Your task to perform on an android device: turn on the 24-hour format for clock Image 0: 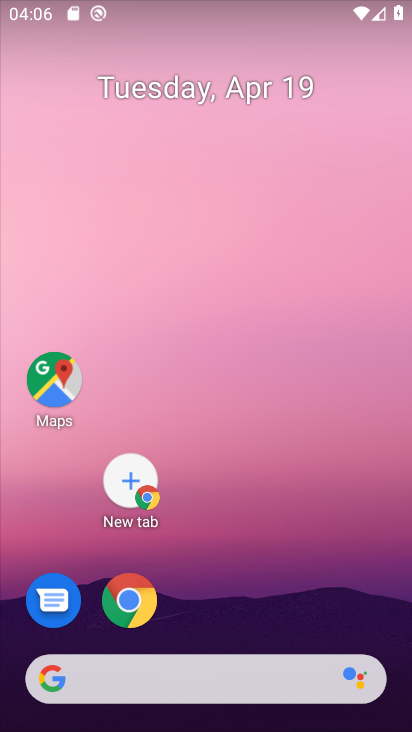
Step 0: drag from (183, 18) to (273, 561)
Your task to perform on an android device: turn on the 24-hour format for clock Image 1: 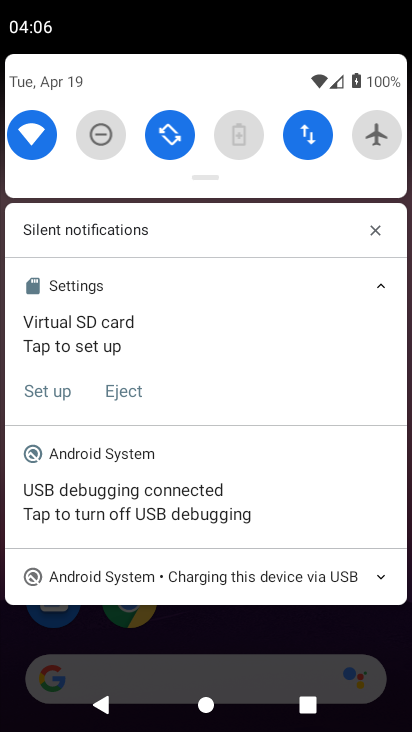
Step 1: drag from (198, 66) to (220, 696)
Your task to perform on an android device: turn on the 24-hour format for clock Image 2: 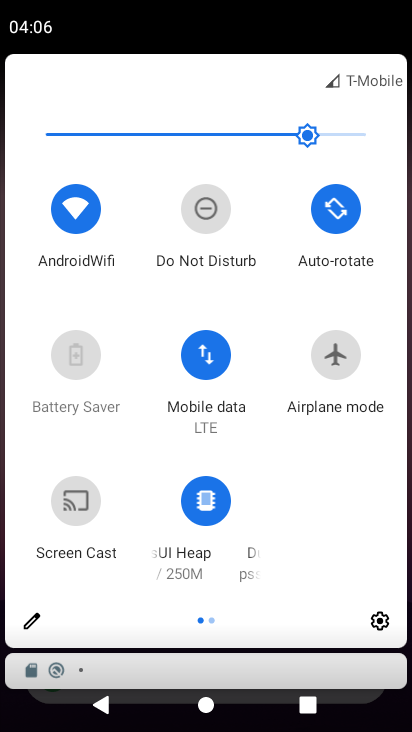
Step 2: click (384, 635)
Your task to perform on an android device: turn on the 24-hour format for clock Image 3: 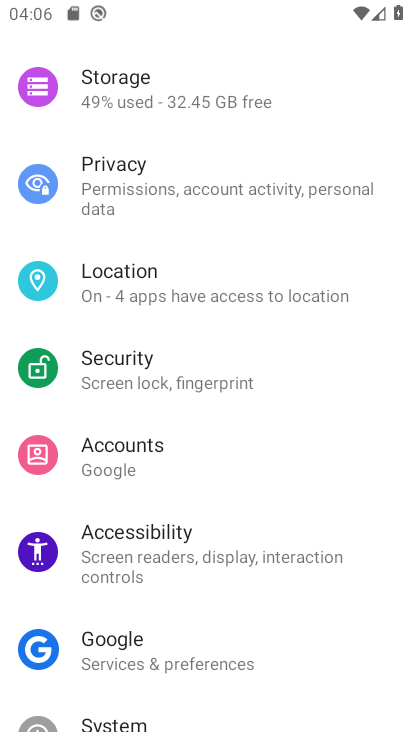
Step 3: press home button
Your task to perform on an android device: turn on the 24-hour format for clock Image 4: 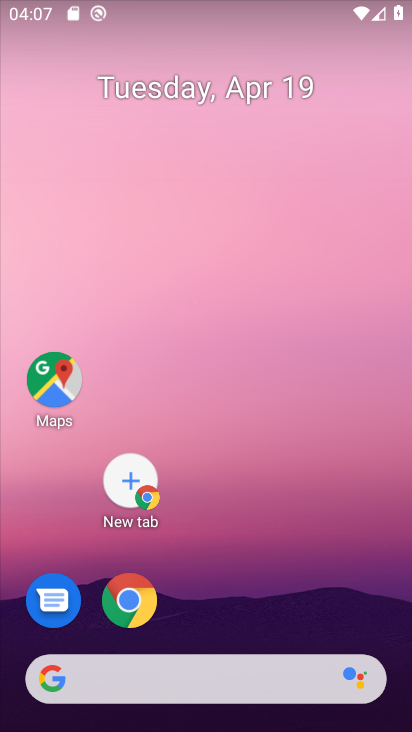
Step 4: drag from (222, 564) to (238, 136)
Your task to perform on an android device: turn on the 24-hour format for clock Image 5: 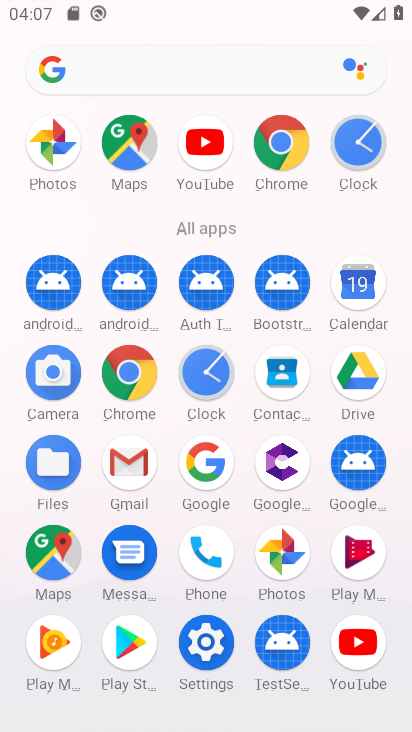
Step 5: click (219, 373)
Your task to perform on an android device: turn on the 24-hour format for clock Image 6: 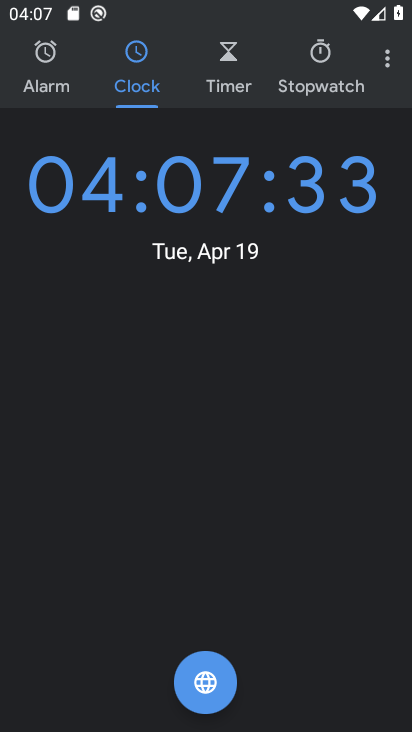
Step 6: click (393, 67)
Your task to perform on an android device: turn on the 24-hour format for clock Image 7: 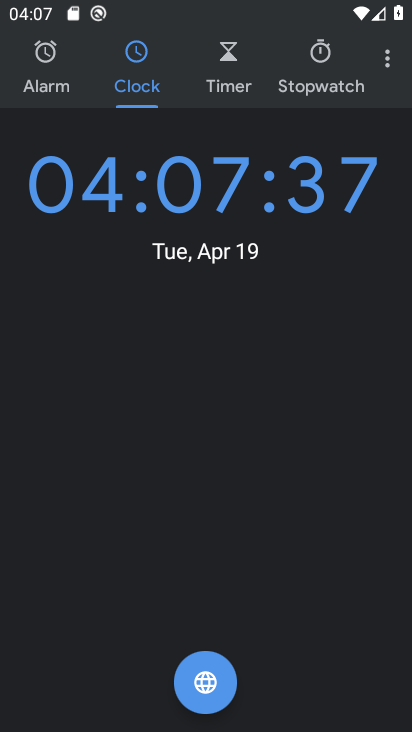
Step 7: click (393, 67)
Your task to perform on an android device: turn on the 24-hour format for clock Image 8: 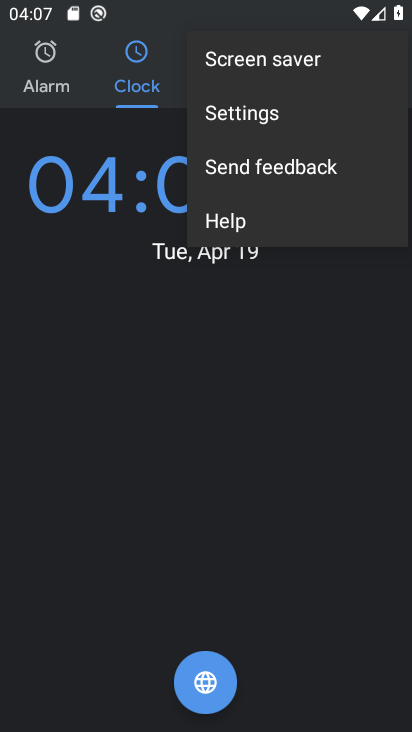
Step 8: click (275, 125)
Your task to perform on an android device: turn on the 24-hour format for clock Image 9: 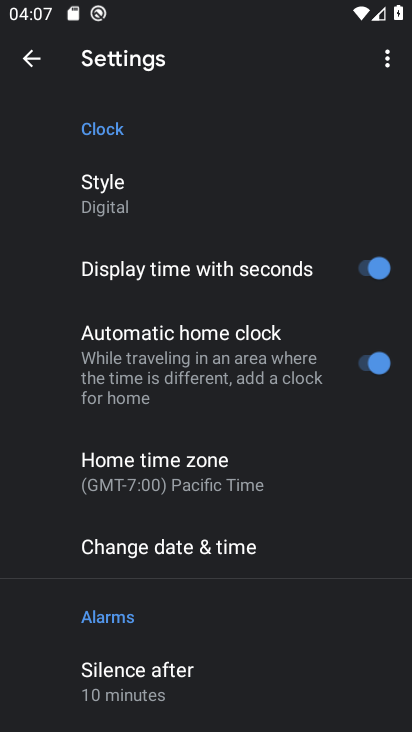
Step 9: click (176, 552)
Your task to perform on an android device: turn on the 24-hour format for clock Image 10: 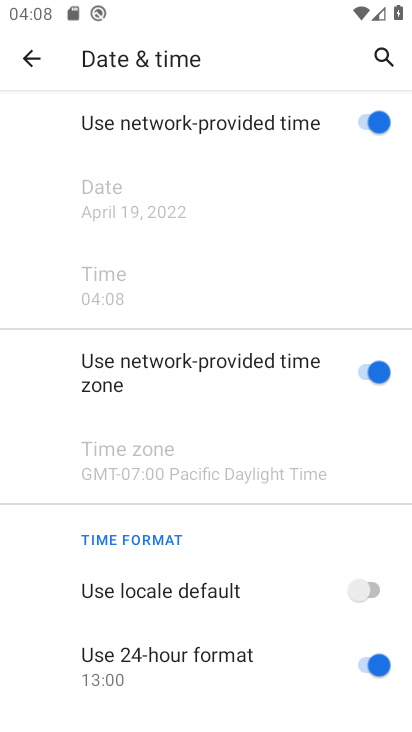
Step 10: task complete